Your task to perform on an android device: set default search engine in the chrome app Image 0: 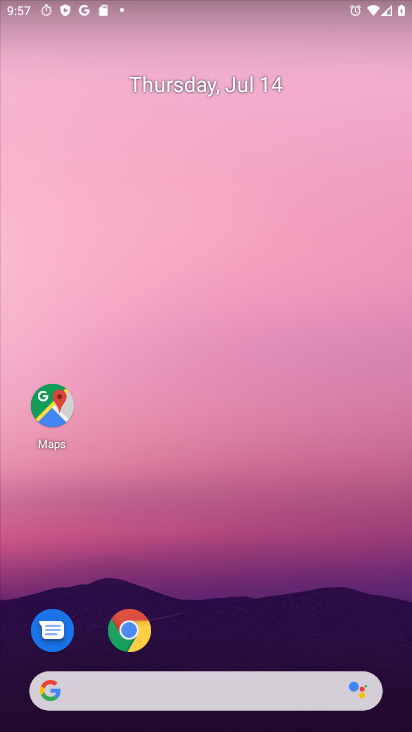
Step 0: click (140, 645)
Your task to perform on an android device: set default search engine in the chrome app Image 1: 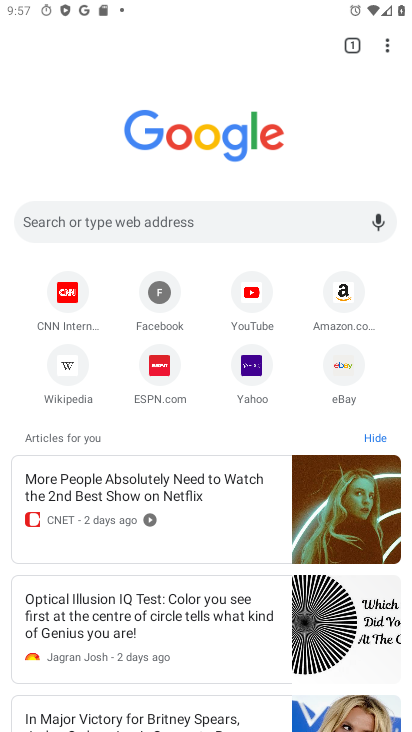
Step 1: click (388, 49)
Your task to perform on an android device: set default search engine in the chrome app Image 2: 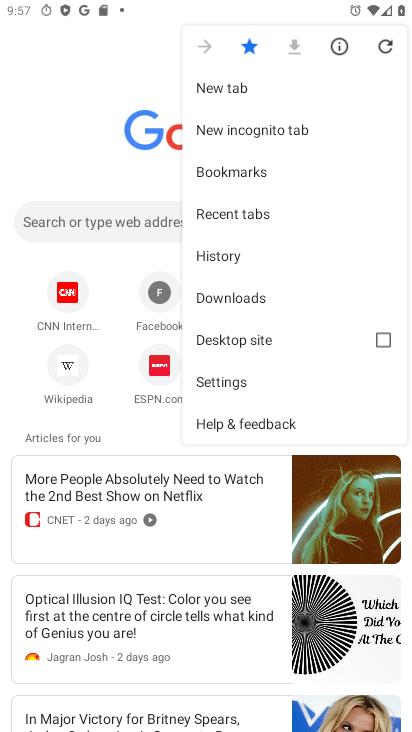
Step 2: click (219, 383)
Your task to perform on an android device: set default search engine in the chrome app Image 3: 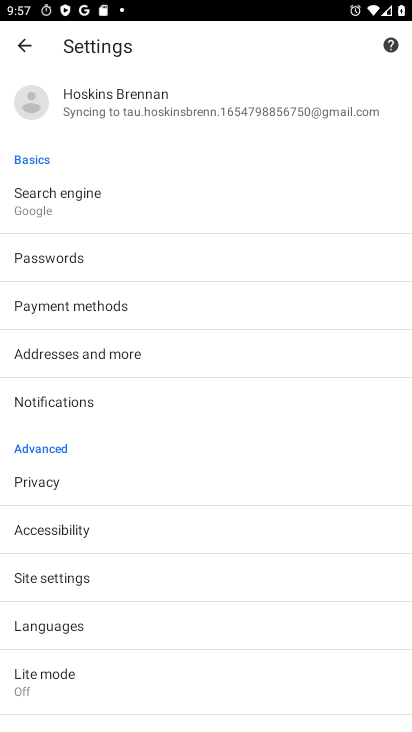
Step 3: task complete